Your task to perform on an android device: Check the weather Image 0: 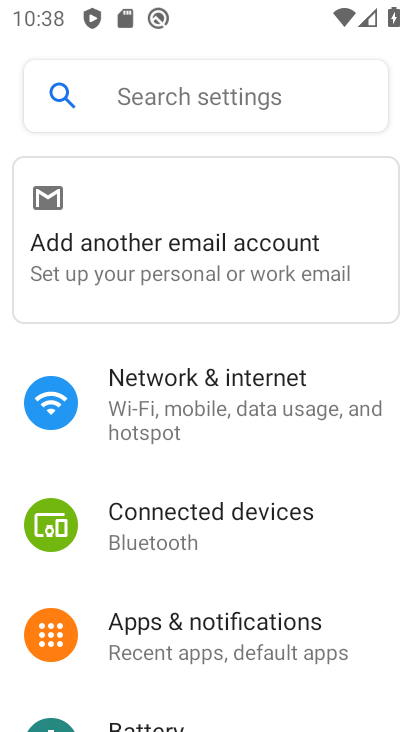
Step 0: press home button
Your task to perform on an android device: Check the weather Image 1: 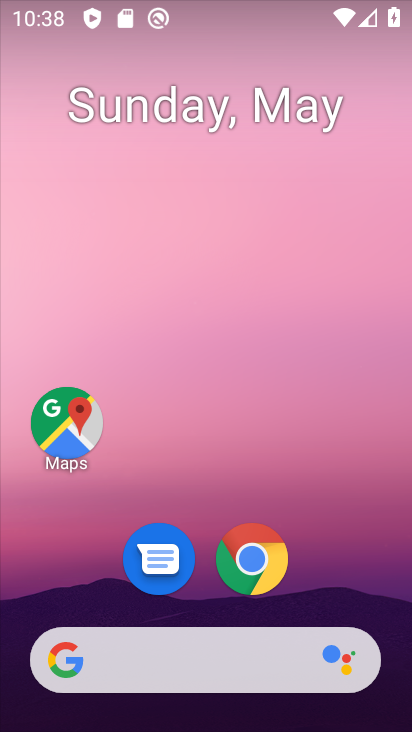
Step 1: click (226, 659)
Your task to perform on an android device: Check the weather Image 2: 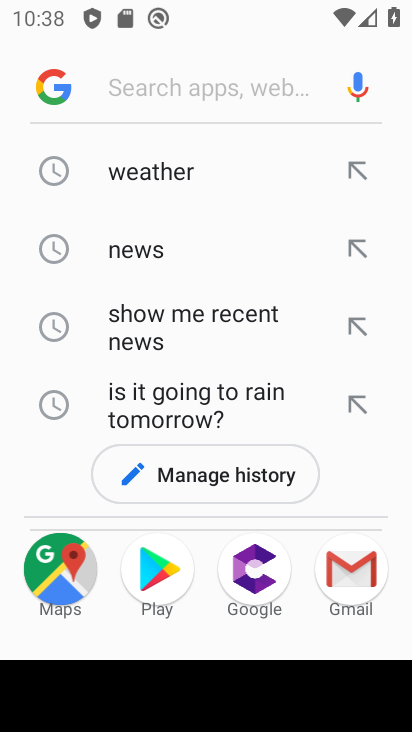
Step 2: click (230, 173)
Your task to perform on an android device: Check the weather Image 3: 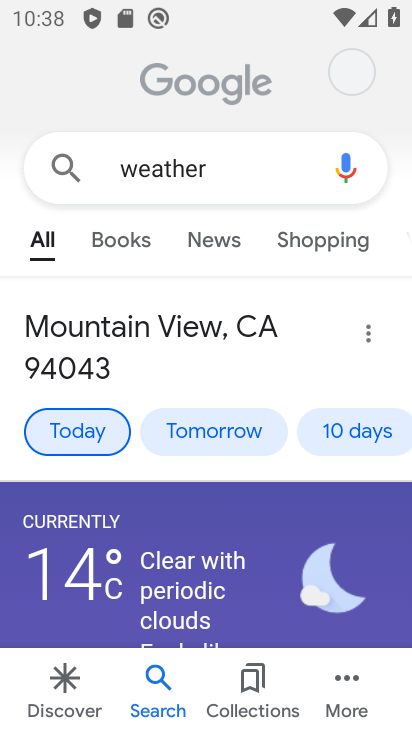
Step 3: task complete